Your task to perform on an android device: uninstall "Paramount+ | Peak Streaming" Image 0: 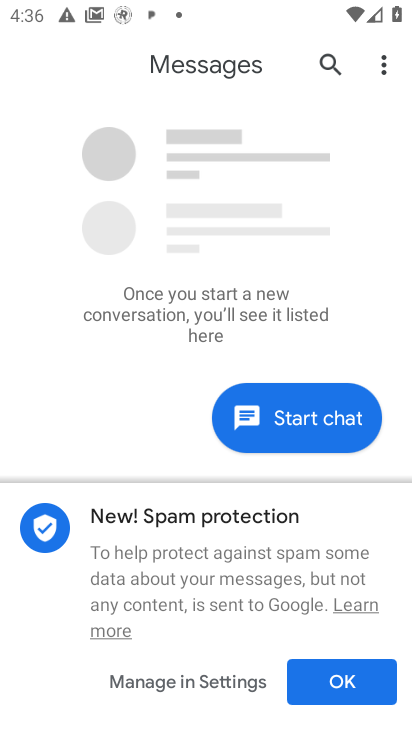
Step 0: press home button
Your task to perform on an android device: uninstall "Paramount+ | Peak Streaming" Image 1: 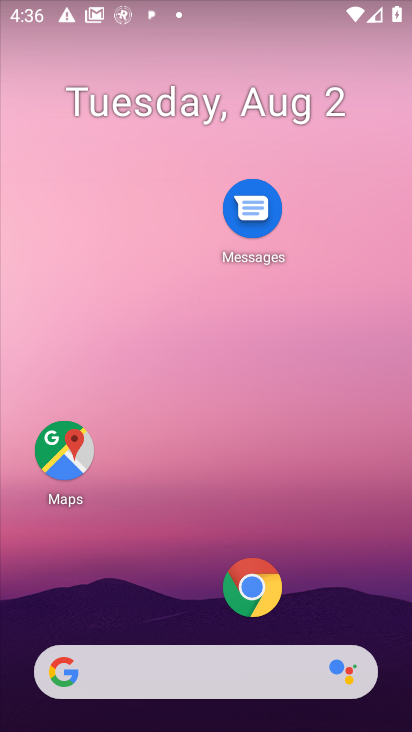
Step 1: drag from (204, 609) to (197, 242)
Your task to perform on an android device: uninstall "Paramount+ | Peak Streaming" Image 2: 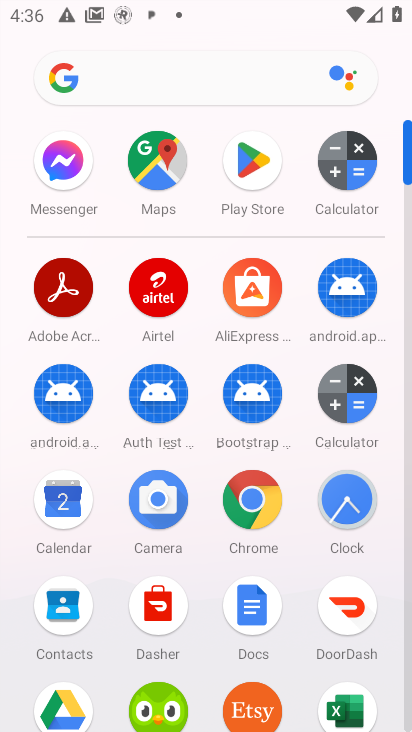
Step 2: click (266, 192)
Your task to perform on an android device: uninstall "Paramount+ | Peak Streaming" Image 3: 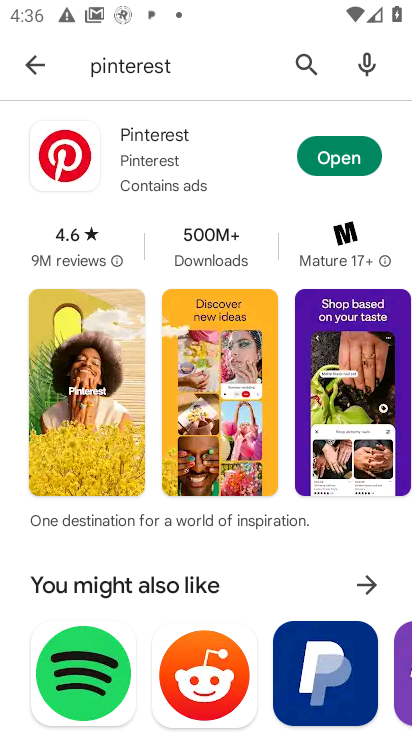
Step 3: click (308, 78)
Your task to perform on an android device: uninstall "Paramount+ | Peak Streaming" Image 4: 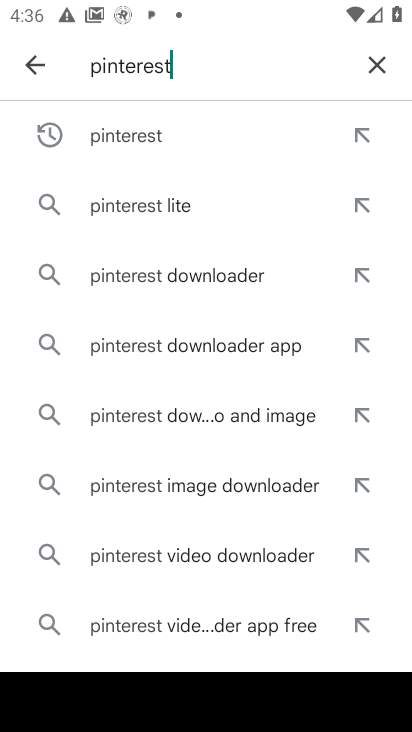
Step 4: click (365, 63)
Your task to perform on an android device: uninstall "Paramount+ | Peak Streaming" Image 5: 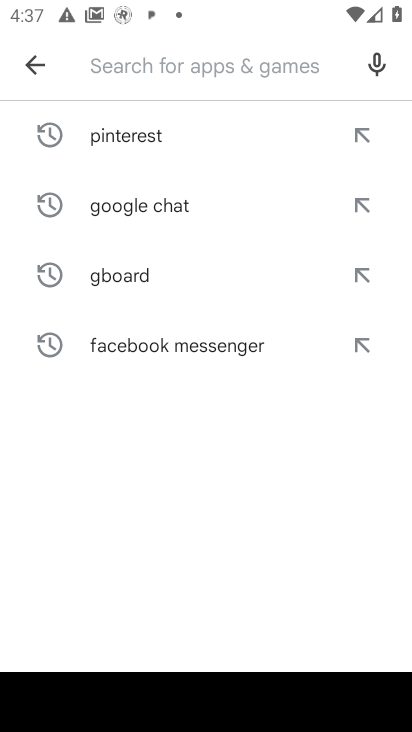
Step 5: type "Paramount+ | Peak Streaming"
Your task to perform on an android device: uninstall "Paramount+ | Peak Streaming" Image 6: 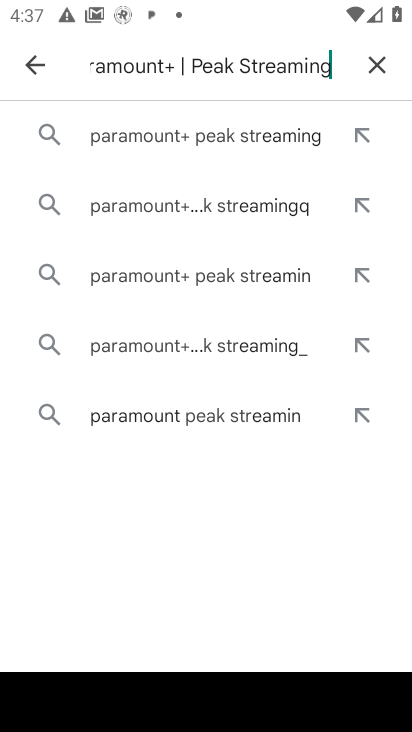
Step 6: type ""
Your task to perform on an android device: uninstall "Paramount+ | Peak Streaming" Image 7: 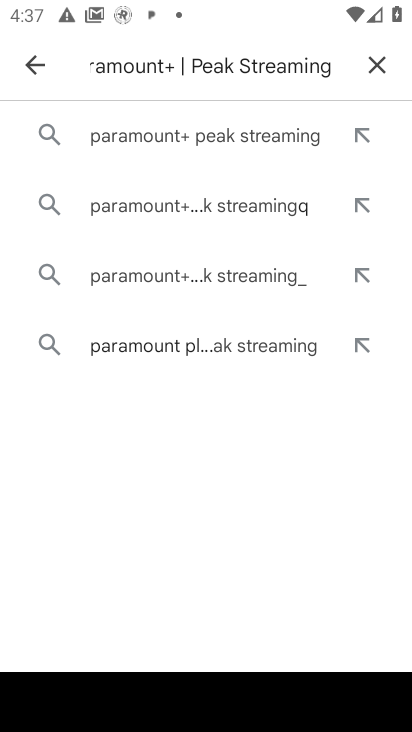
Step 7: click (233, 123)
Your task to perform on an android device: uninstall "Paramount+ | Peak Streaming" Image 8: 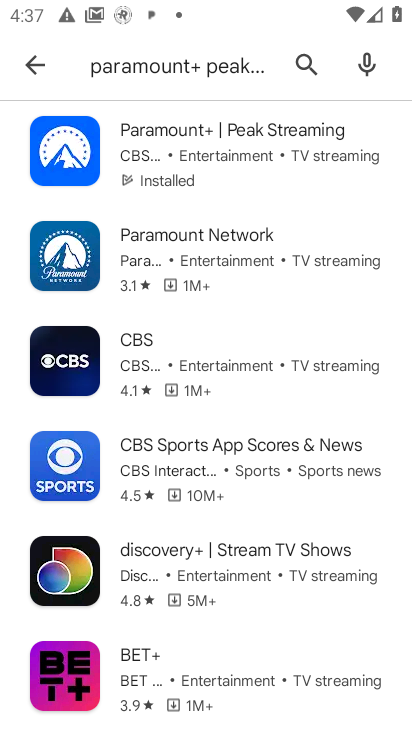
Step 8: click (255, 151)
Your task to perform on an android device: uninstall "Paramount+ | Peak Streaming" Image 9: 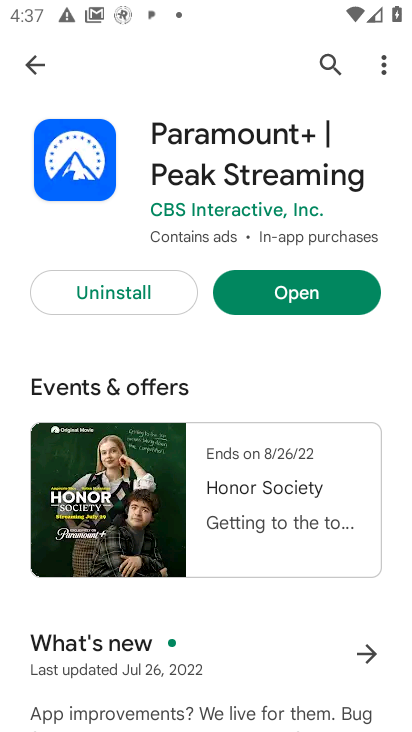
Step 9: click (158, 285)
Your task to perform on an android device: uninstall "Paramount+ | Peak Streaming" Image 10: 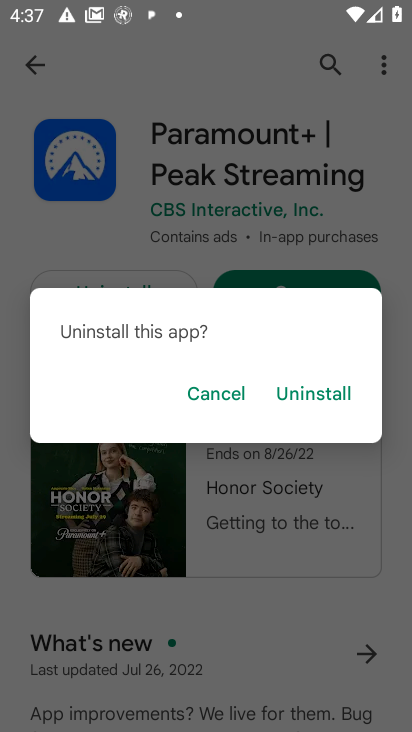
Step 10: click (304, 395)
Your task to perform on an android device: uninstall "Paramount+ | Peak Streaming" Image 11: 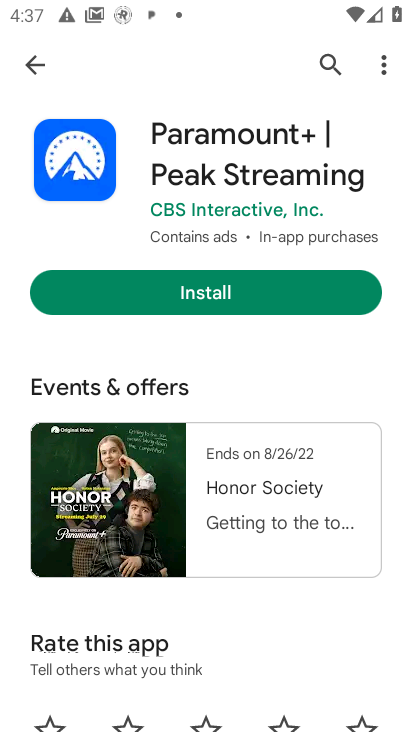
Step 11: task complete